Your task to perform on an android device: Search for sushi restaurants on Maps Image 0: 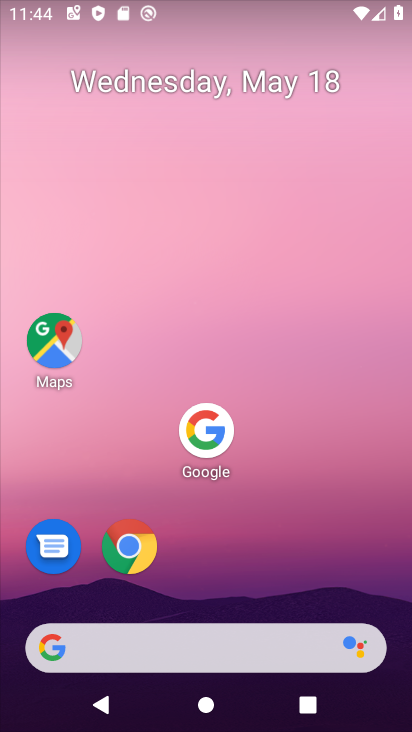
Step 0: click (51, 348)
Your task to perform on an android device: Search for sushi restaurants on Maps Image 1: 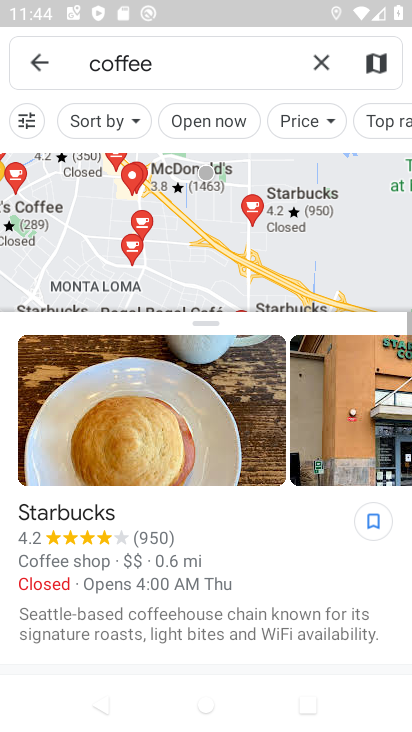
Step 1: click (321, 61)
Your task to perform on an android device: Search for sushi restaurants on Maps Image 2: 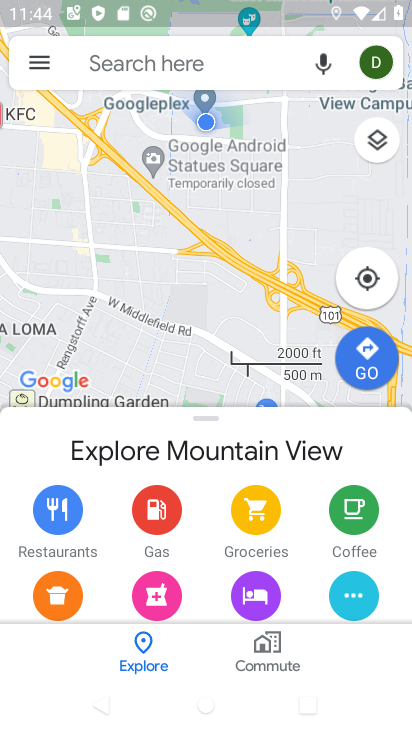
Step 2: click (165, 59)
Your task to perform on an android device: Search for sushi restaurants on Maps Image 3: 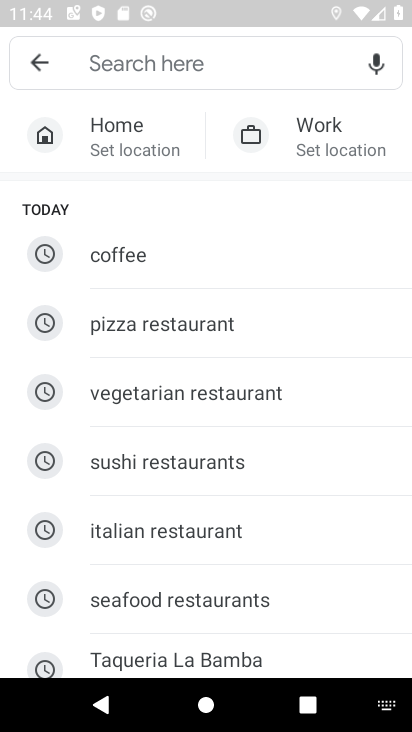
Step 3: click (185, 461)
Your task to perform on an android device: Search for sushi restaurants on Maps Image 4: 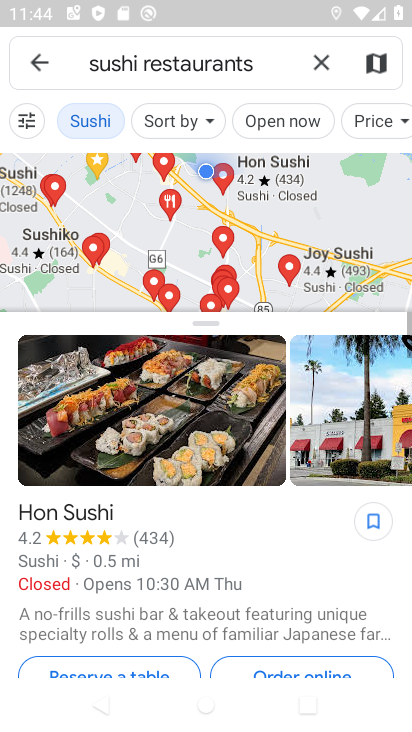
Step 4: task complete